Your task to perform on an android device: turn off improve location accuracy Image 0: 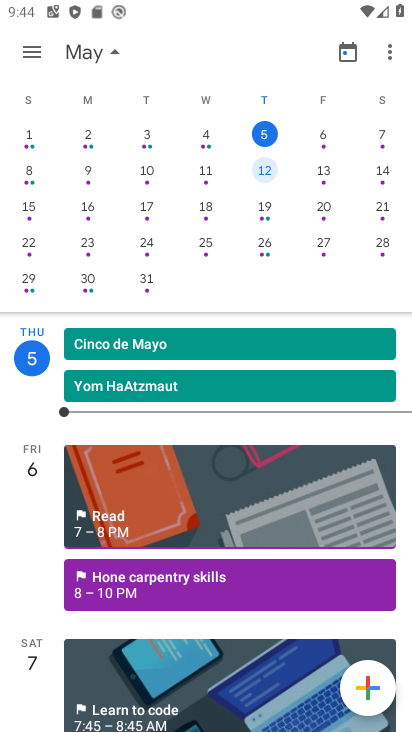
Step 0: press home button
Your task to perform on an android device: turn off improve location accuracy Image 1: 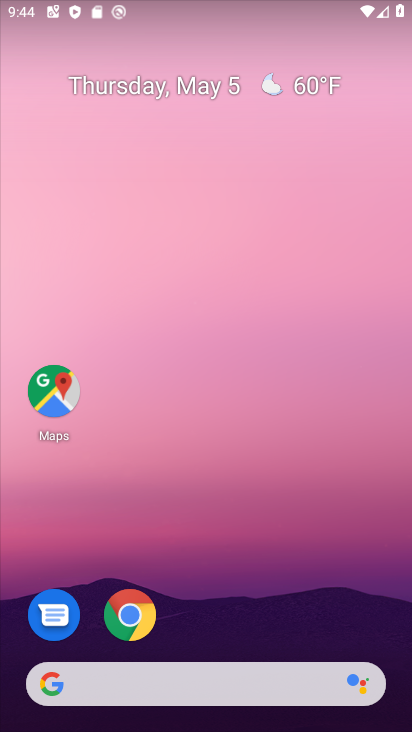
Step 1: drag from (261, 623) to (288, 85)
Your task to perform on an android device: turn off improve location accuracy Image 2: 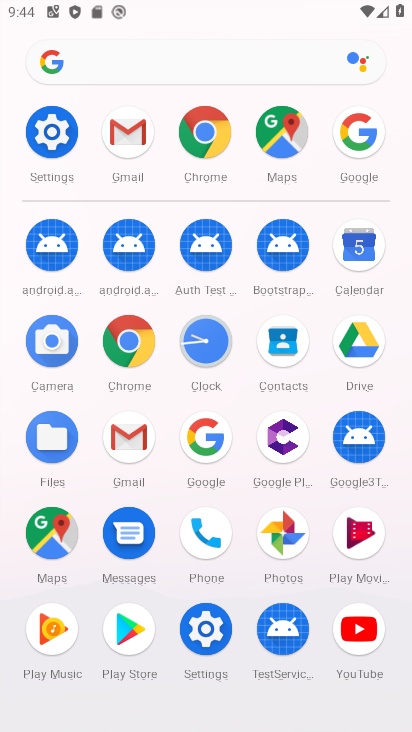
Step 2: click (202, 631)
Your task to perform on an android device: turn off improve location accuracy Image 3: 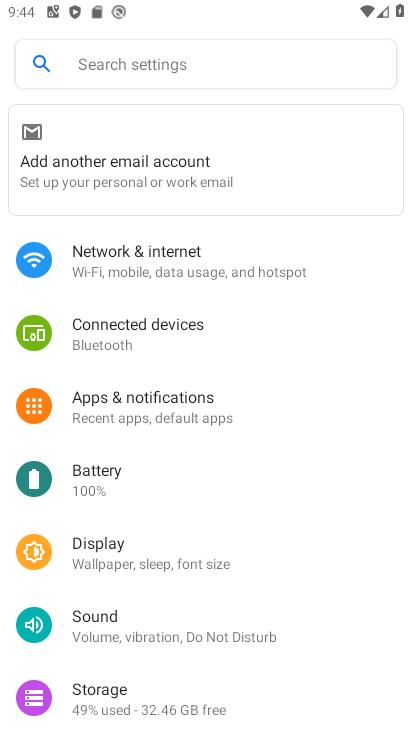
Step 3: drag from (165, 639) to (252, 161)
Your task to perform on an android device: turn off improve location accuracy Image 4: 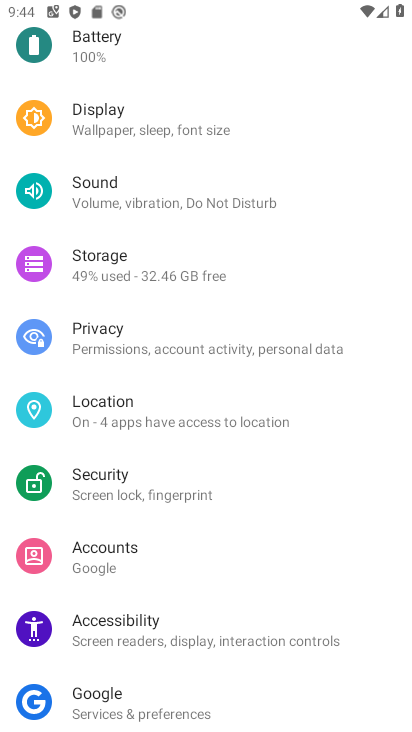
Step 4: click (145, 434)
Your task to perform on an android device: turn off improve location accuracy Image 5: 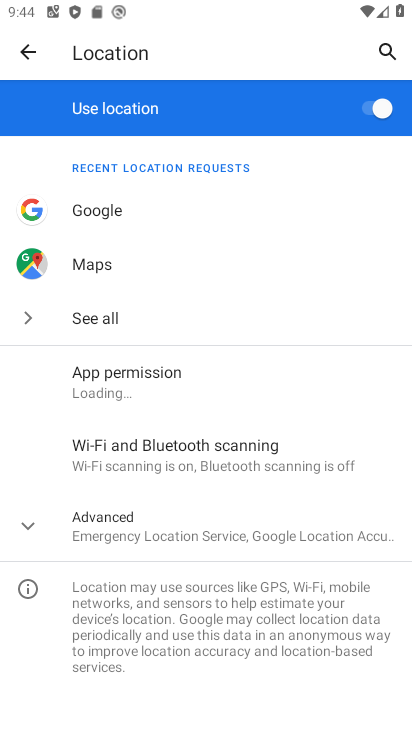
Step 5: click (175, 533)
Your task to perform on an android device: turn off improve location accuracy Image 6: 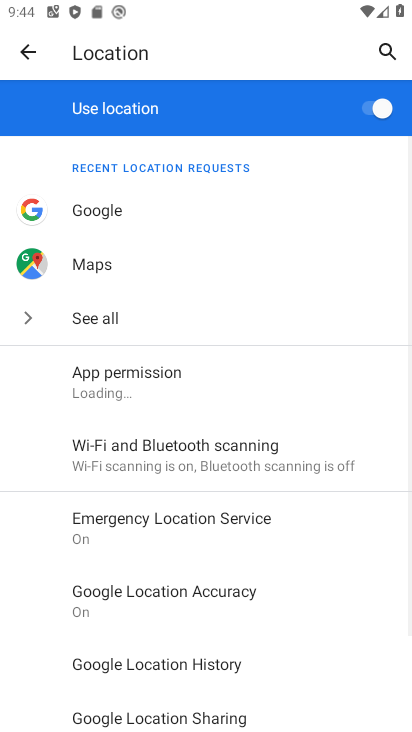
Step 6: click (229, 605)
Your task to perform on an android device: turn off improve location accuracy Image 7: 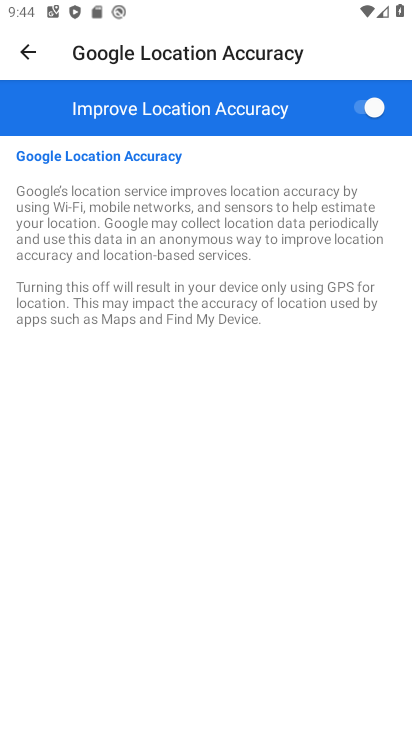
Step 7: click (369, 113)
Your task to perform on an android device: turn off improve location accuracy Image 8: 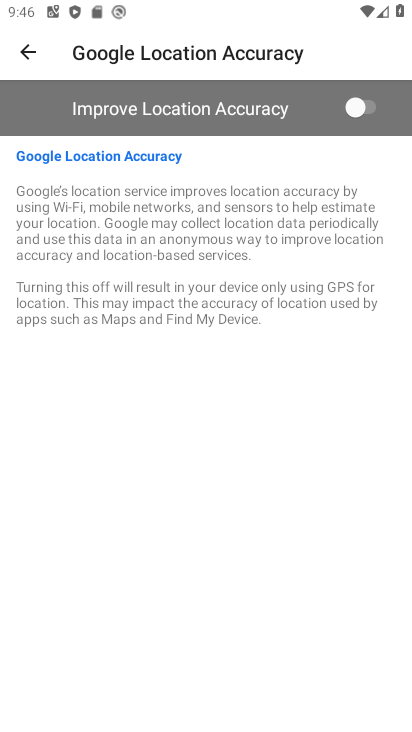
Step 8: task complete